Your task to perform on an android device: Open the Play Movies app and select the watchlist tab. Image 0: 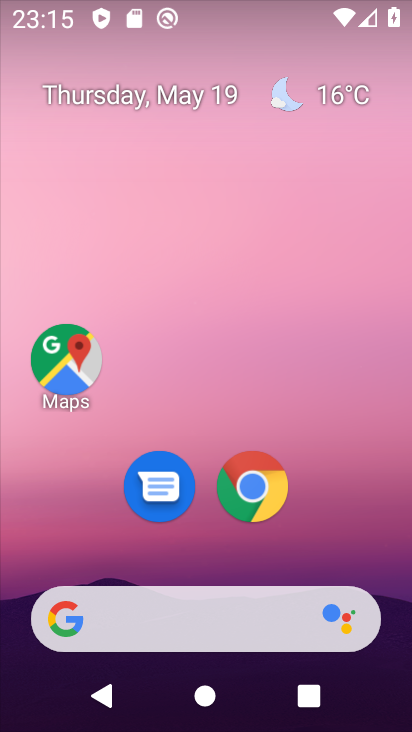
Step 0: drag from (342, 500) to (396, 25)
Your task to perform on an android device: Open the Play Movies app and select the watchlist tab. Image 1: 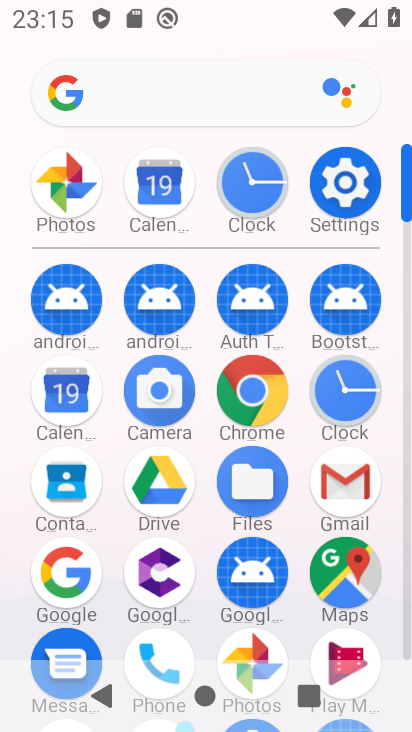
Step 1: click (343, 636)
Your task to perform on an android device: Open the Play Movies app and select the watchlist tab. Image 2: 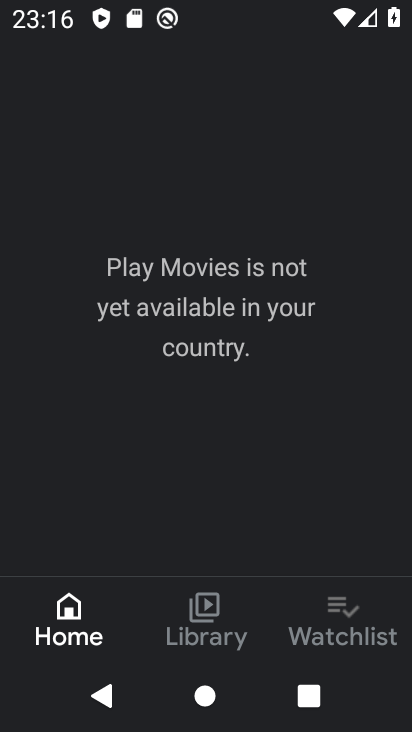
Step 2: click (335, 626)
Your task to perform on an android device: Open the Play Movies app and select the watchlist tab. Image 3: 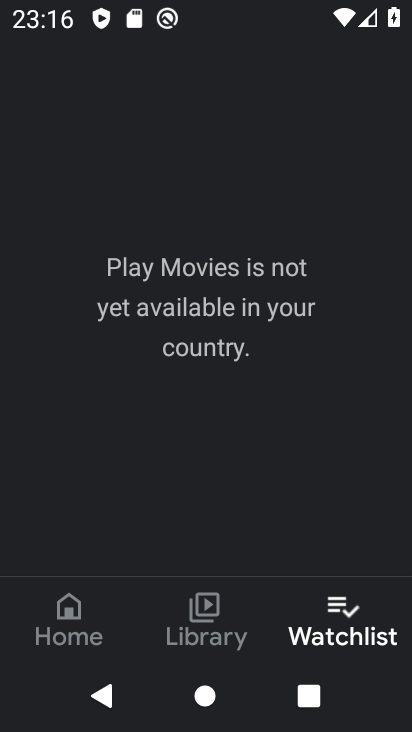
Step 3: task complete